Your task to perform on an android device: move an email to a new category in the gmail app Image 0: 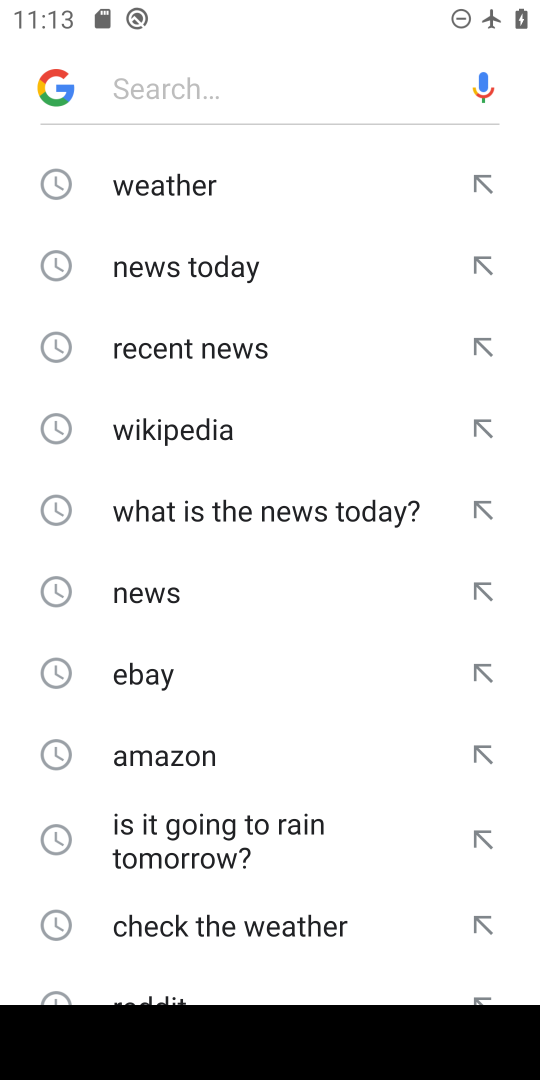
Step 0: press home button
Your task to perform on an android device: move an email to a new category in the gmail app Image 1: 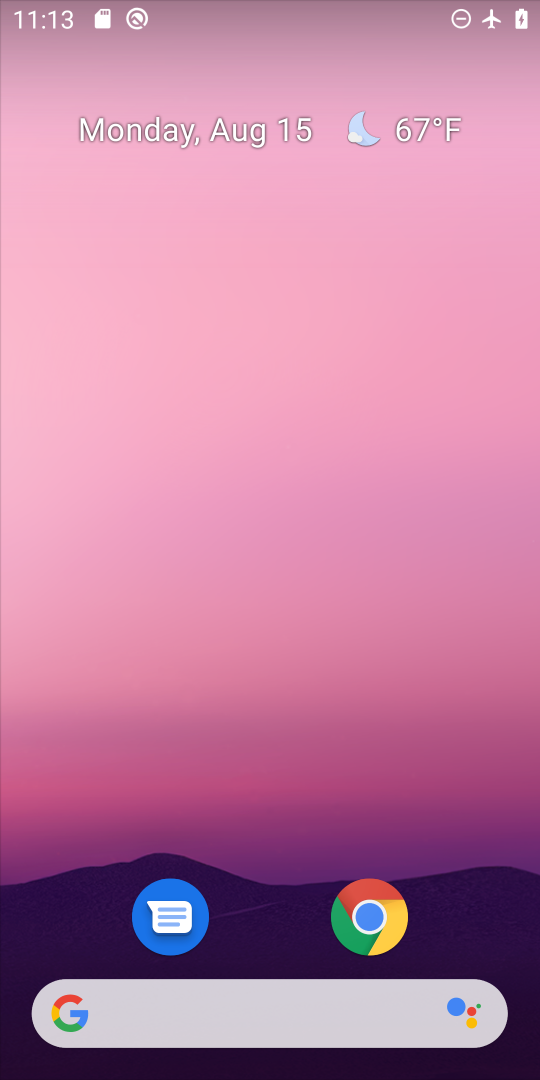
Step 1: drag from (258, 893) to (221, 0)
Your task to perform on an android device: move an email to a new category in the gmail app Image 2: 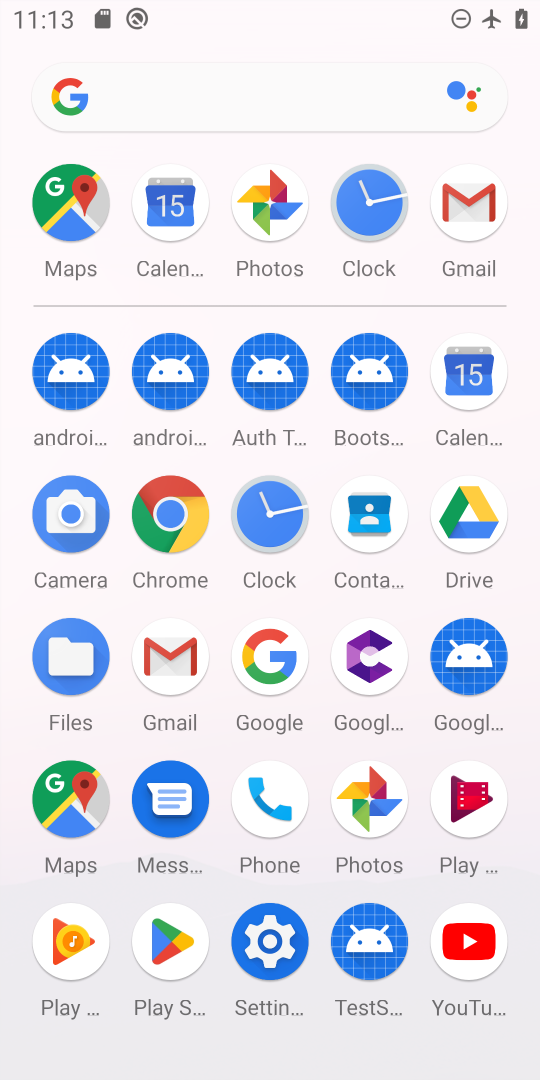
Step 2: click (475, 199)
Your task to perform on an android device: move an email to a new category in the gmail app Image 3: 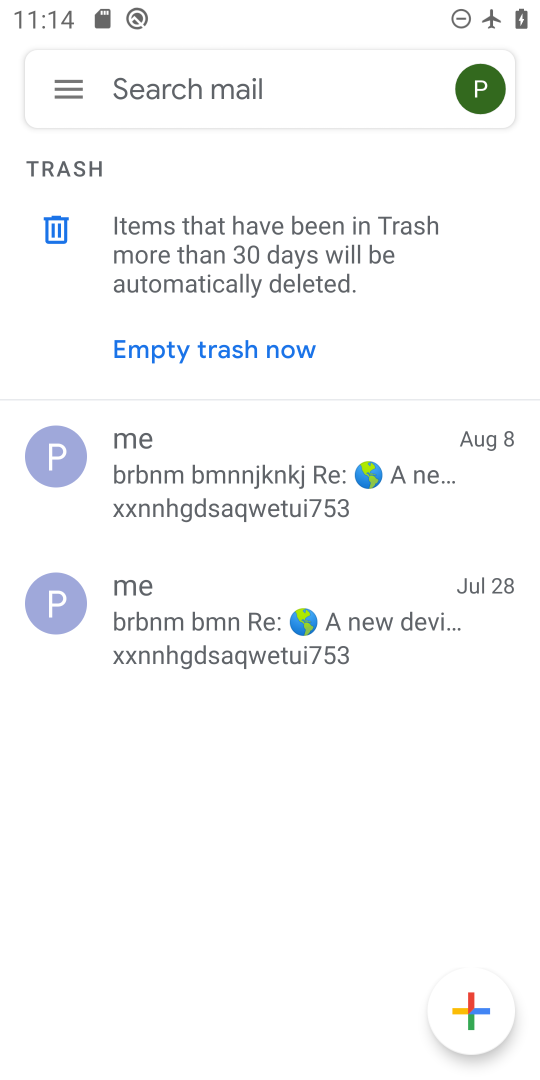
Step 3: click (255, 468)
Your task to perform on an android device: move an email to a new category in the gmail app Image 4: 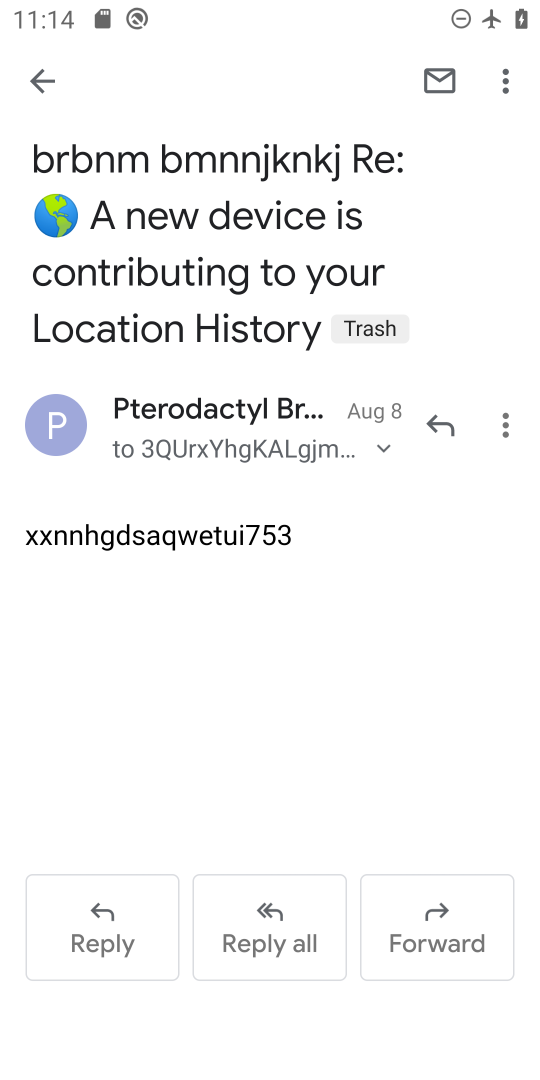
Step 4: click (504, 81)
Your task to perform on an android device: move an email to a new category in the gmail app Image 5: 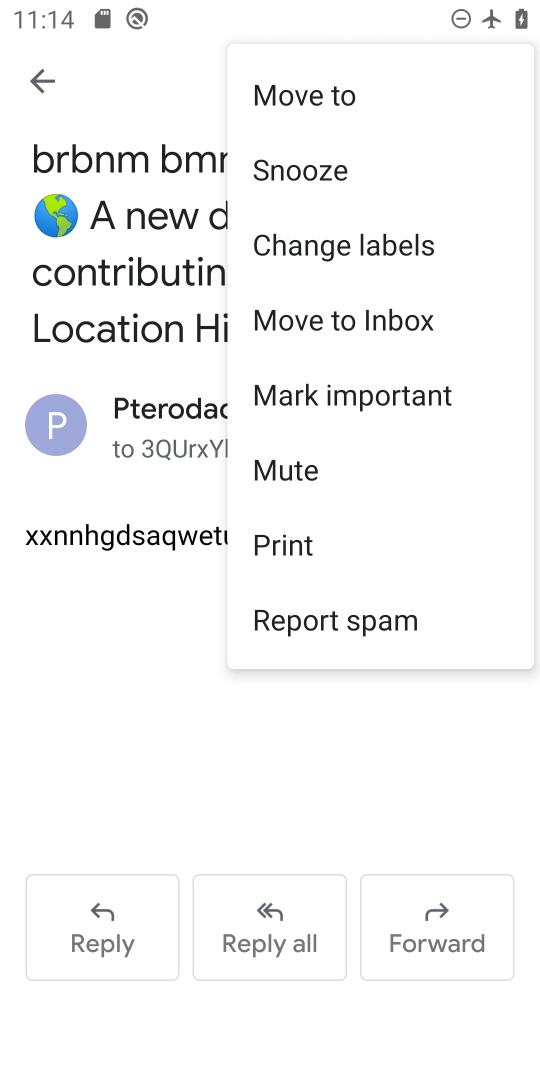
Step 5: click (378, 309)
Your task to perform on an android device: move an email to a new category in the gmail app Image 6: 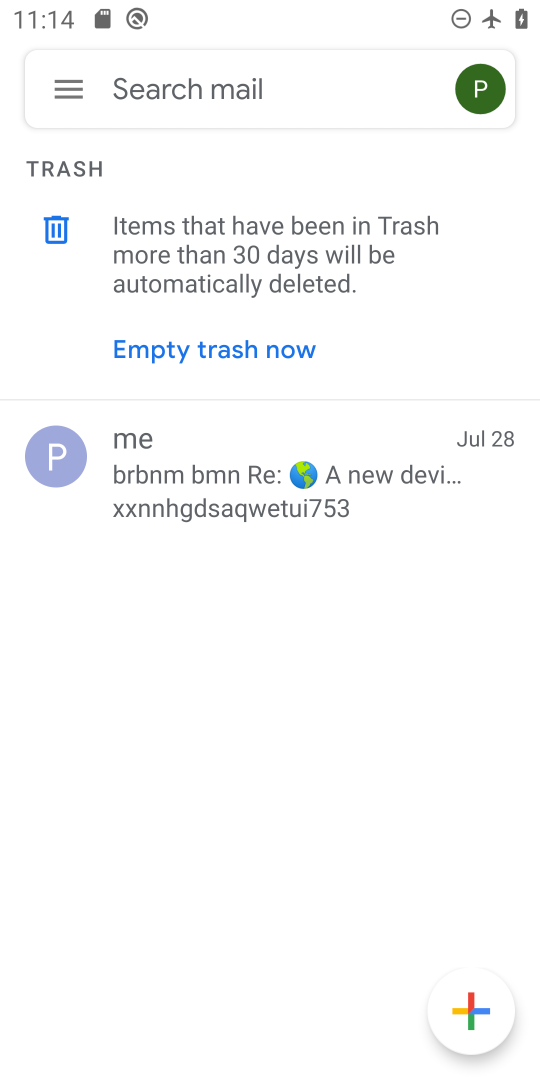
Step 6: task complete